Your task to perform on an android device: turn on the 12-hour format for clock Image 0: 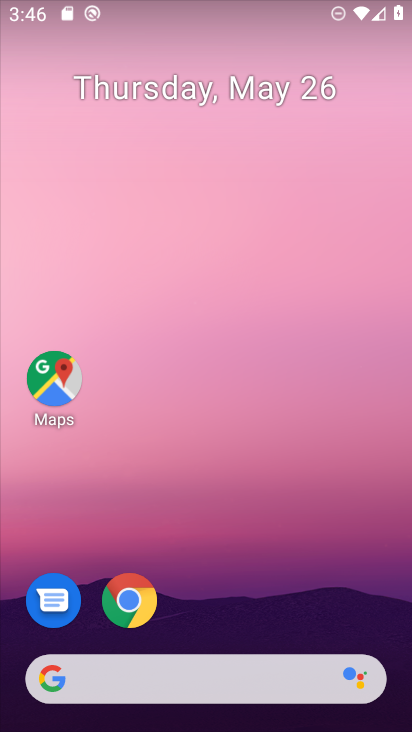
Step 0: drag from (278, 587) to (207, 21)
Your task to perform on an android device: turn on the 12-hour format for clock Image 1: 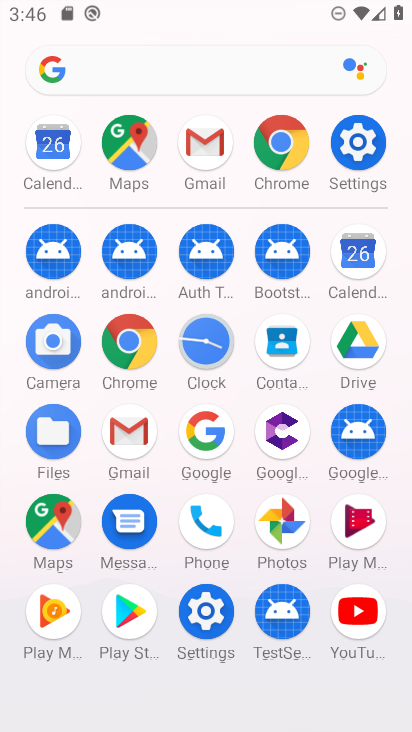
Step 1: drag from (12, 526) to (36, 186)
Your task to perform on an android device: turn on the 12-hour format for clock Image 2: 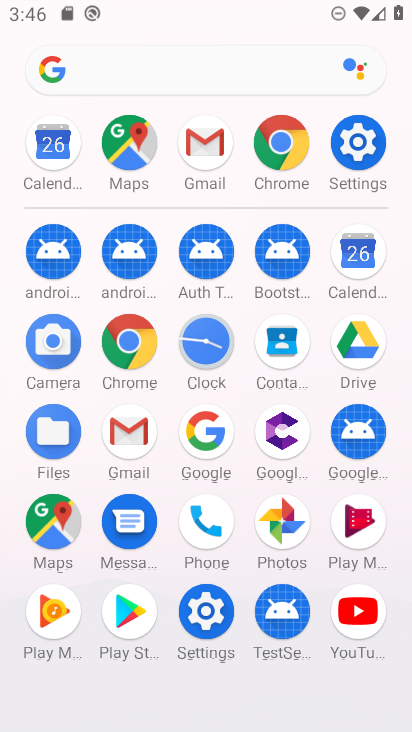
Step 2: click (354, 253)
Your task to perform on an android device: turn on the 12-hour format for clock Image 3: 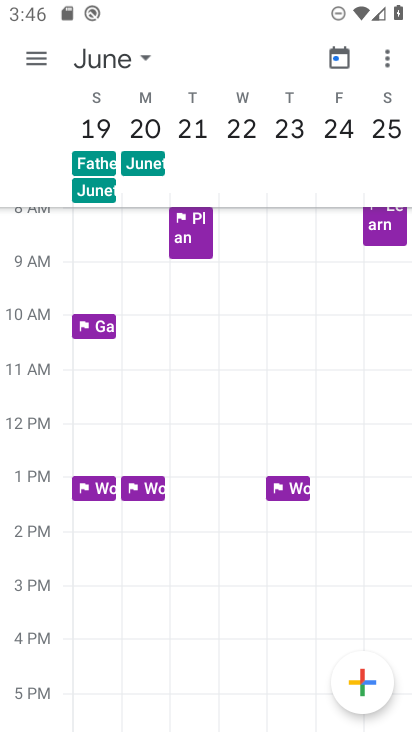
Step 3: click (30, 55)
Your task to perform on an android device: turn on the 12-hour format for clock Image 4: 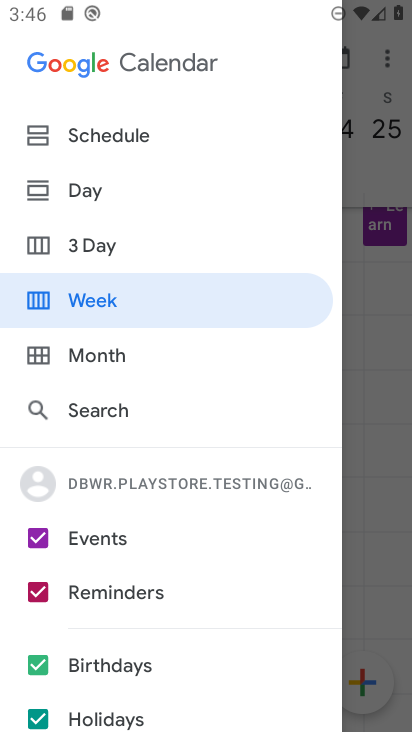
Step 4: press back button
Your task to perform on an android device: turn on the 12-hour format for clock Image 5: 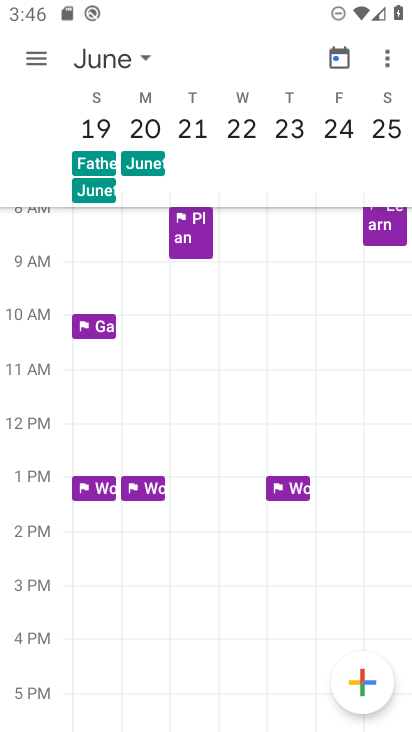
Step 5: press home button
Your task to perform on an android device: turn on the 12-hour format for clock Image 6: 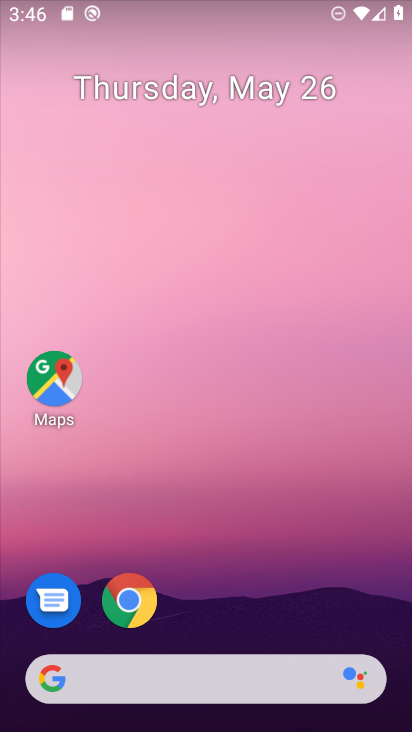
Step 6: drag from (270, 563) to (233, 58)
Your task to perform on an android device: turn on the 12-hour format for clock Image 7: 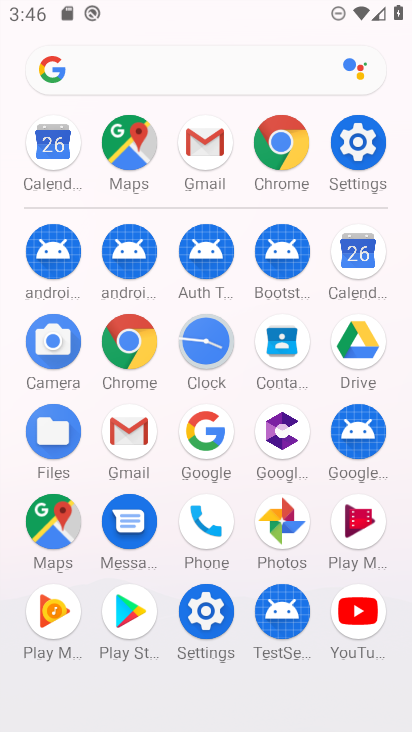
Step 7: drag from (0, 470) to (18, 170)
Your task to perform on an android device: turn on the 12-hour format for clock Image 8: 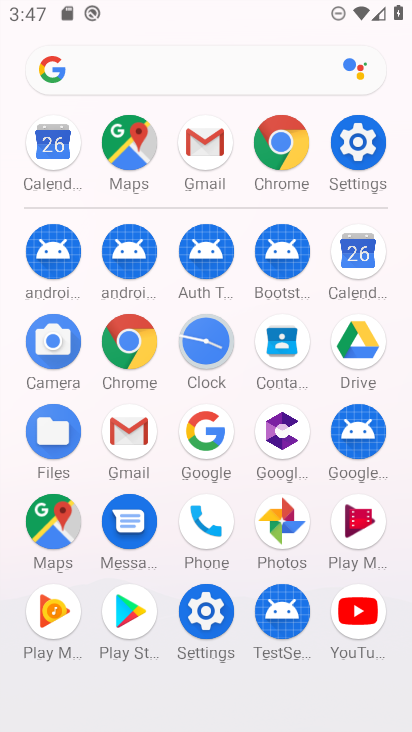
Step 8: click (205, 337)
Your task to perform on an android device: turn on the 12-hour format for clock Image 9: 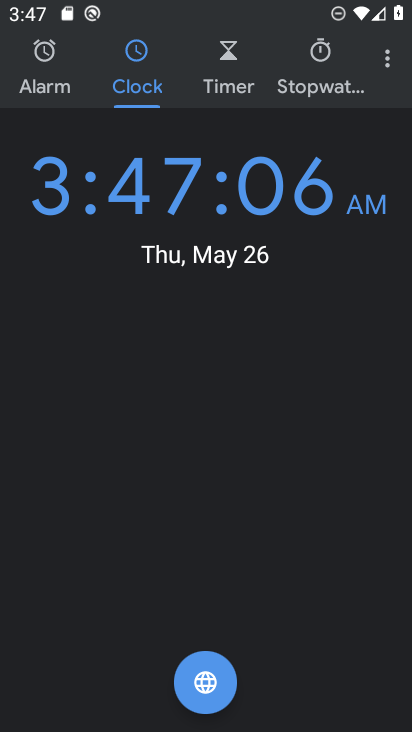
Step 9: drag from (388, 62) to (280, 112)
Your task to perform on an android device: turn on the 12-hour format for clock Image 10: 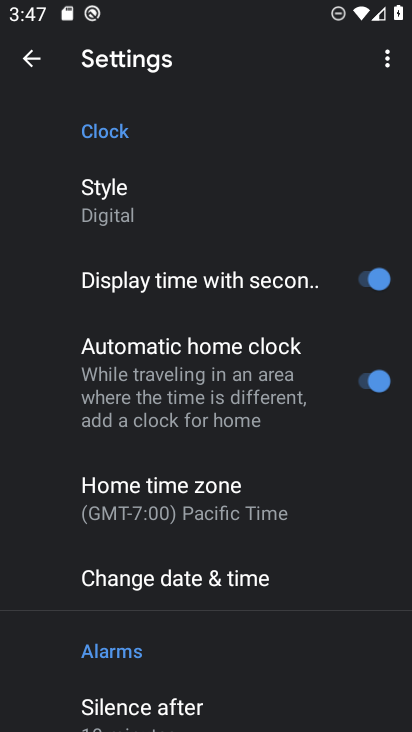
Step 10: drag from (212, 582) to (226, 161)
Your task to perform on an android device: turn on the 12-hour format for clock Image 11: 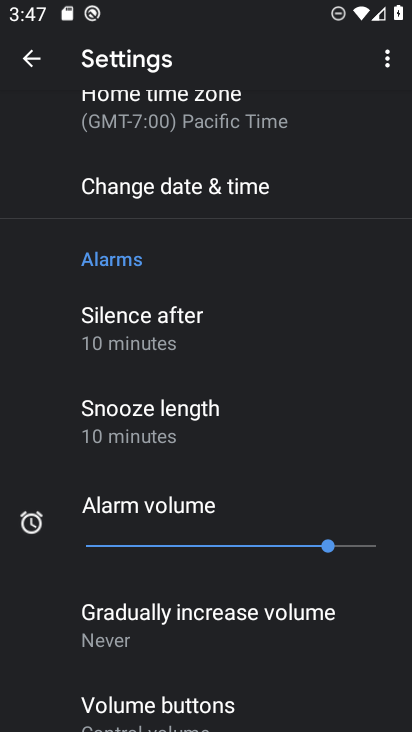
Step 11: click (199, 176)
Your task to perform on an android device: turn on the 12-hour format for clock Image 12: 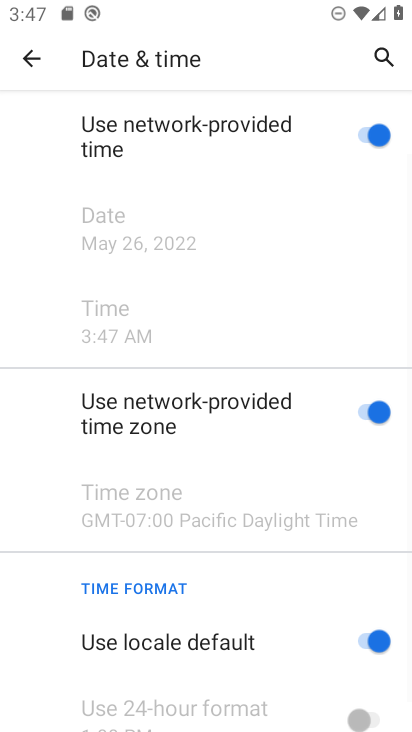
Step 12: task complete